Your task to perform on an android device: Open eBay Image 0: 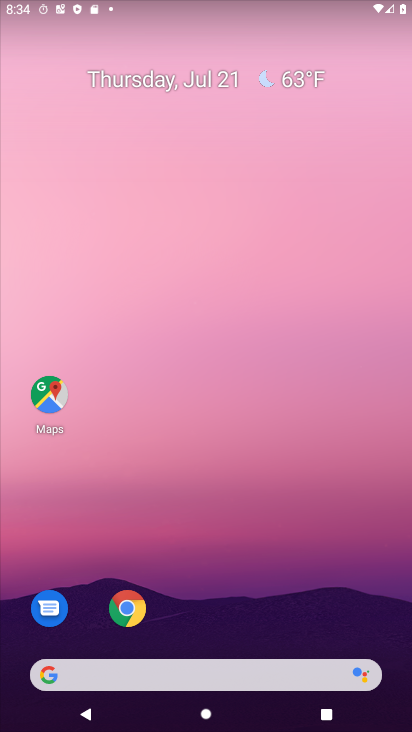
Step 0: press home button
Your task to perform on an android device: Open eBay Image 1: 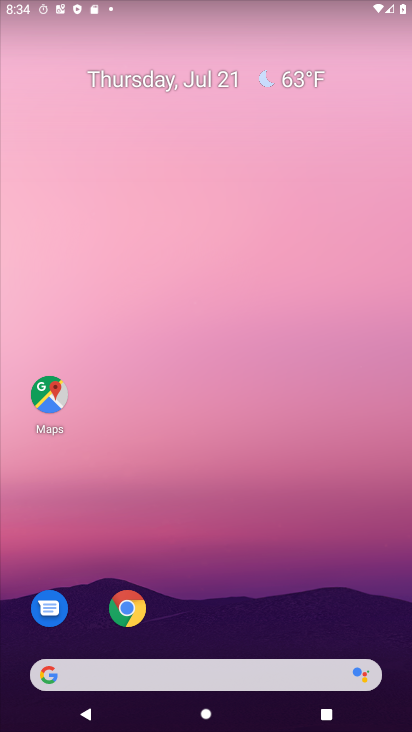
Step 1: drag from (343, 599) to (307, 7)
Your task to perform on an android device: Open eBay Image 2: 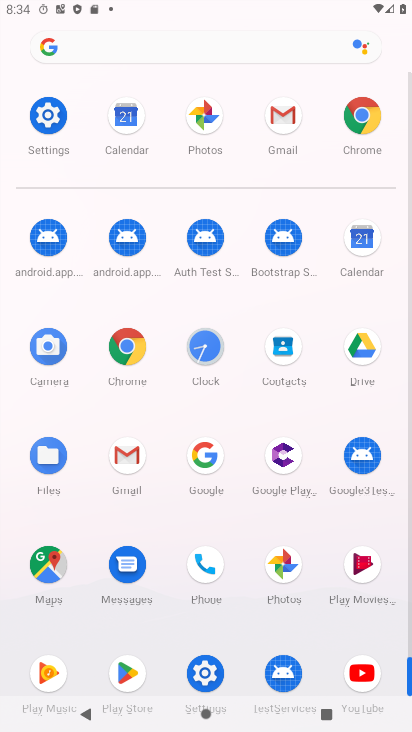
Step 2: click (375, 137)
Your task to perform on an android device: Open eBay Image 3: 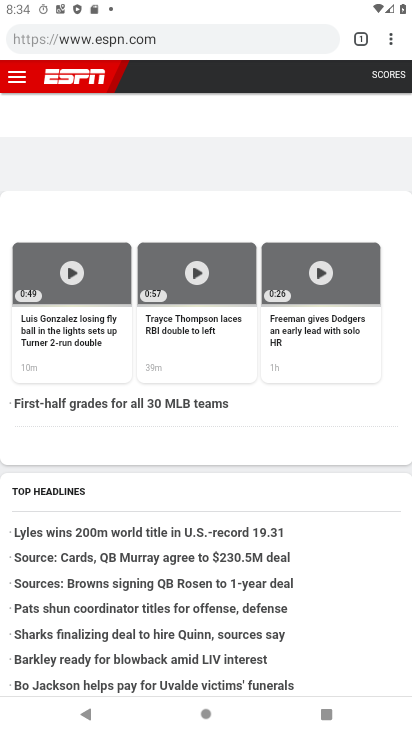
Step 3: click (92, 38)
Your task to perform on an android device: Open eBay Image 4: 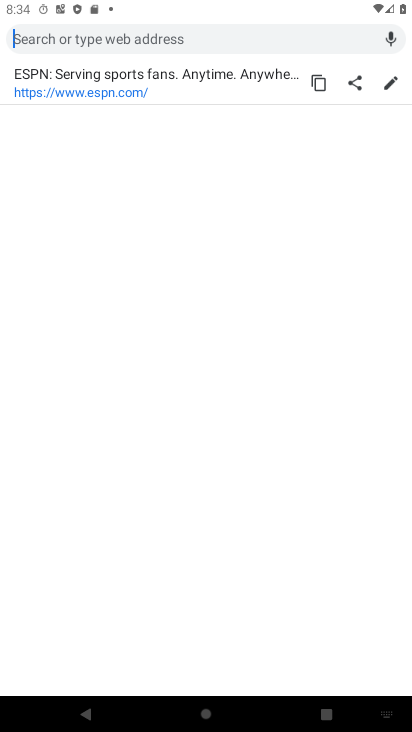
Step 4: type "eBay"
Your task to perform on an android device: Open eBay Image 5: 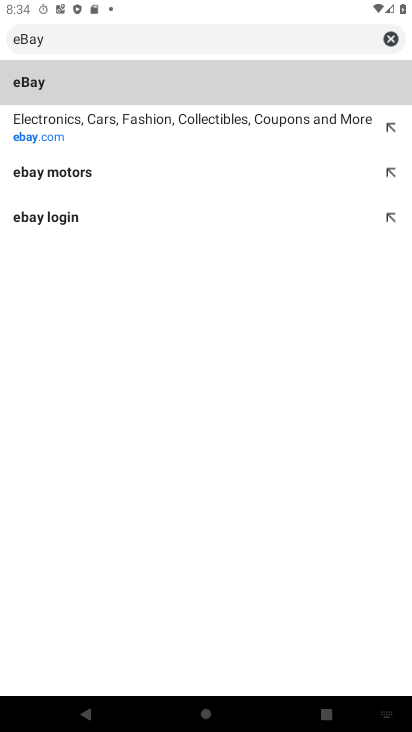
Step 5: click (292, 117)
Your task to perform on an android device: Open eBay Image 6: 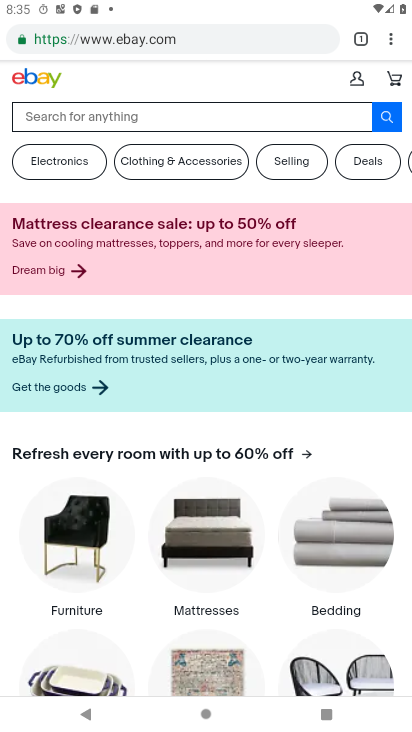
Step 6: task complete